Your task to perform on an android device: Empty the shopping cart on bestbuy.com. Image 0: 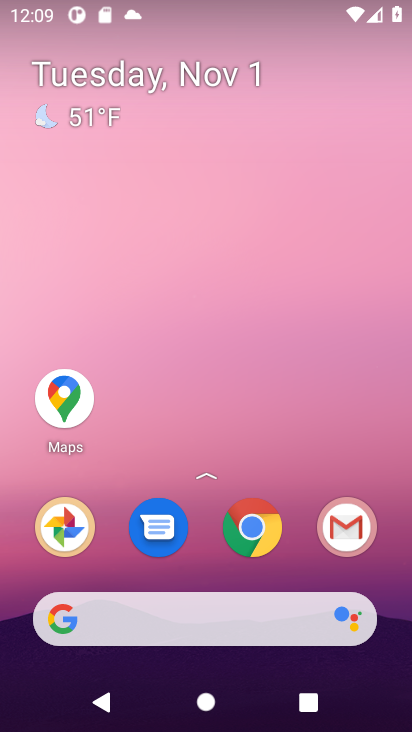
Step 0: click (252, 529)
Your task to perform on an android device: Empty the shopping cart on bestbuy.com. Image 1: 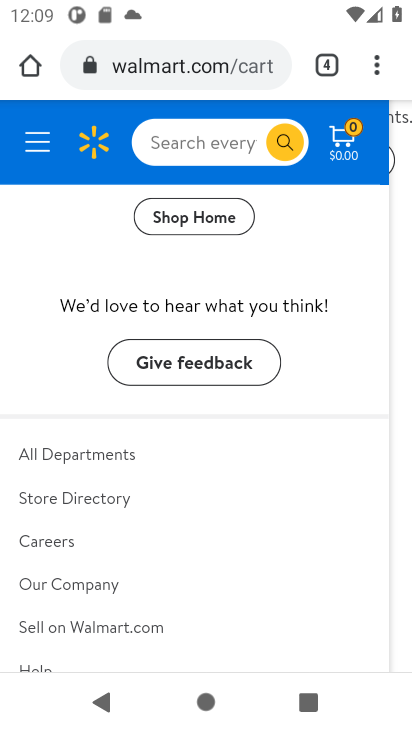
Step 1: click (203, 42)
Your task to perform on an android device: Empty the shopping cart on bestbuy.com. Image 2: 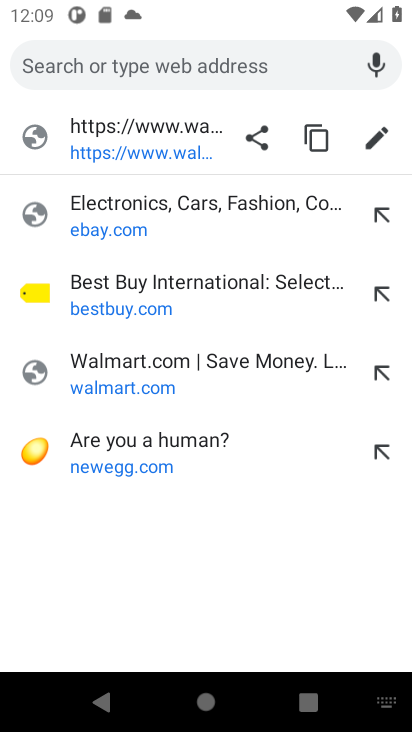
Step 2: click (128, 279)
Your task to perform on an android device: Empty the shopping cart on bestbuy.com. Image 3: 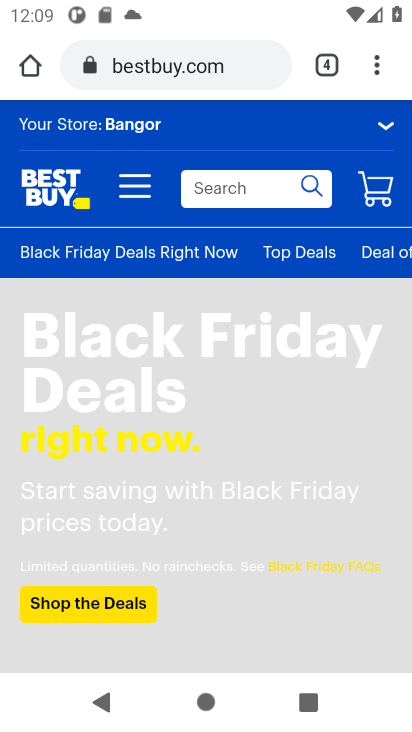
Step 3: click (378, 191)
Your task to perform on an android device: Empty the shopping cart on bestbuy.com. Image 4: 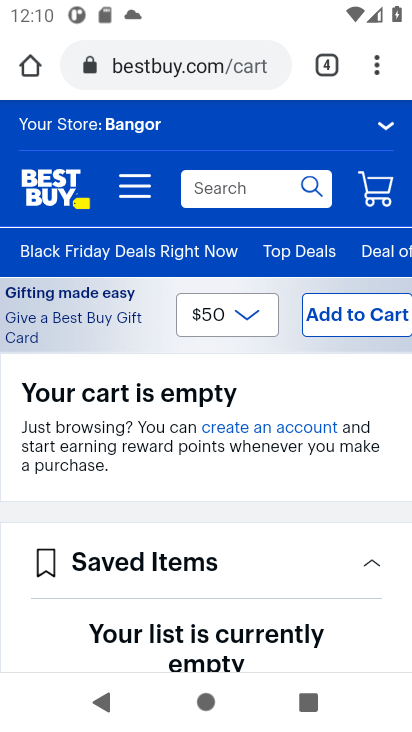
Step 4: task complete